Your task to perform on an android device: Set the phone to "Do not disturb". Image 0: 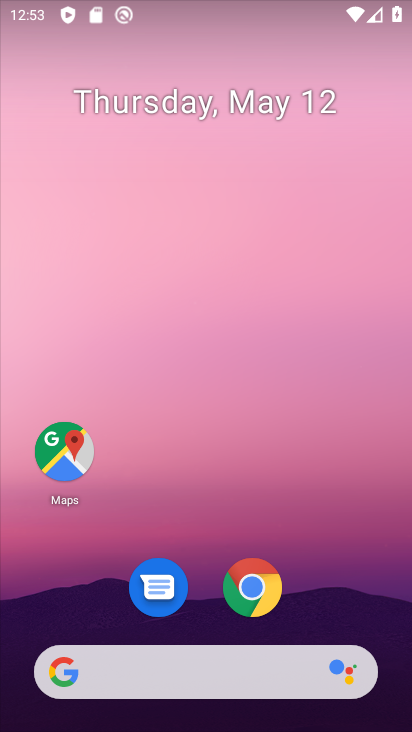
Step 0: drag from (339, 588) to (262, 99)
Your task to perform on an android device: Set the phone to "Do not disturb". Image 1: 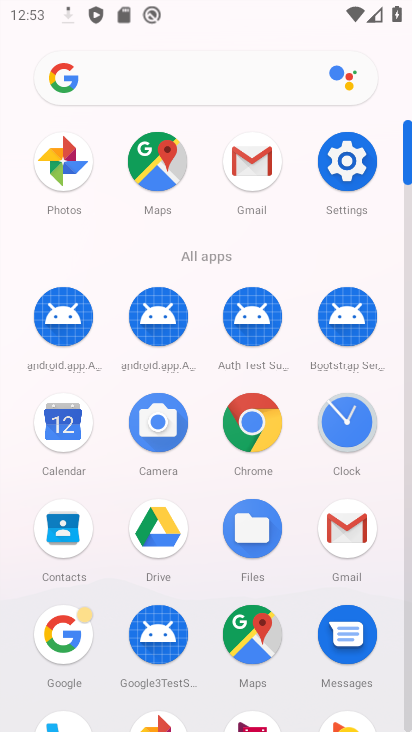
Step 1: click (349, 160)
Your task to perform on an android device: Set the phone to "Do not disturb". Image 2: 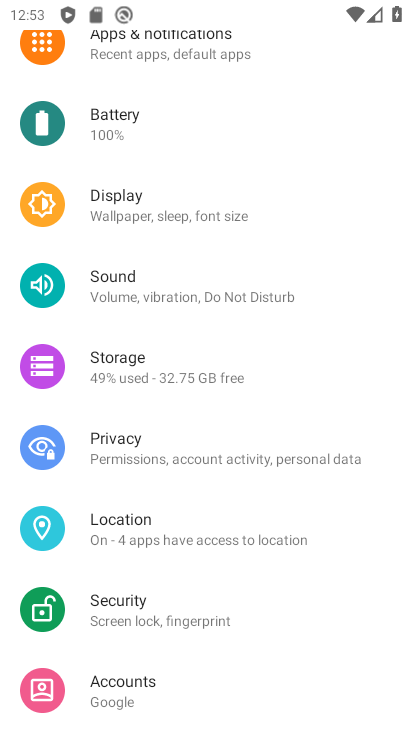
Step 2: drag from (259, 166) to (275, 291)
Your task to perform on an android device: Set the phone to "Do not disturb". Image 3: 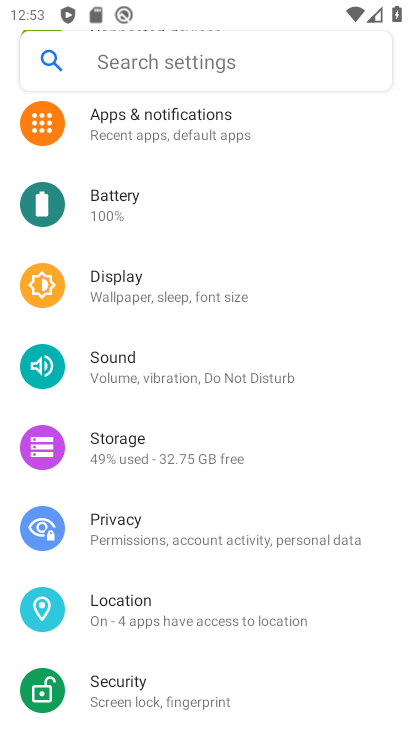
Step 3: click (187, 374)
Your task to perform on an android device: Set the phone to "Do not disturb". Image 4: 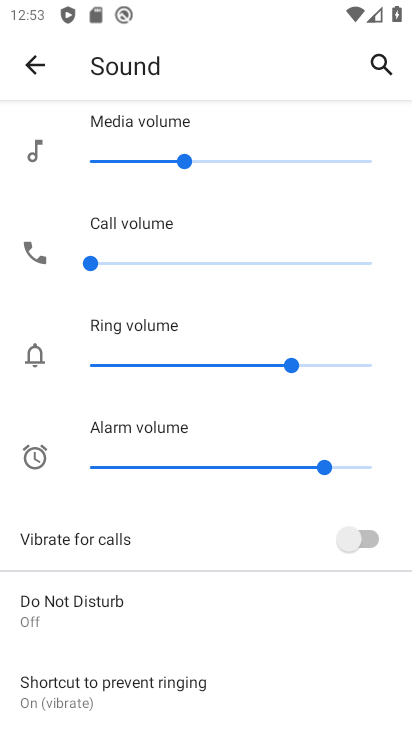
Step 4: click (76, 598)
Your task to perform on an android device: Set the phone to "Do not disturb". Image 5: 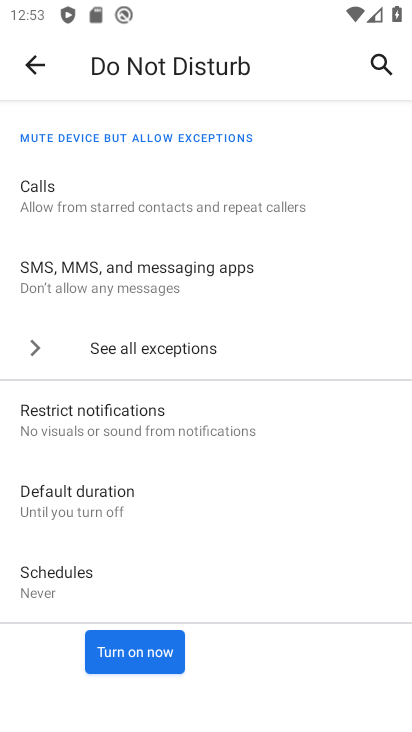
Step 5: click (135, 654)
Your task to perform on an android device: Set the phone to "Do not disturb". Image 6: 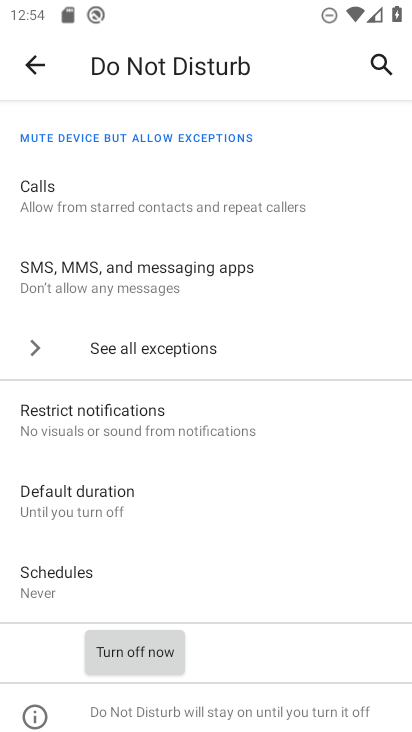
Step 6: task complete